Your task to perform on an android device: Search for pizza restaurants on Maps Image 0: 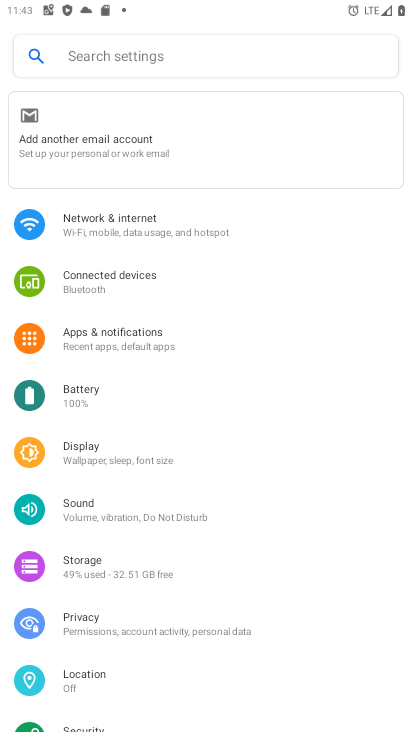
Step 0: press home button
Your task to perform on an android device: Search for pizza restaurants on Maps Image 1: 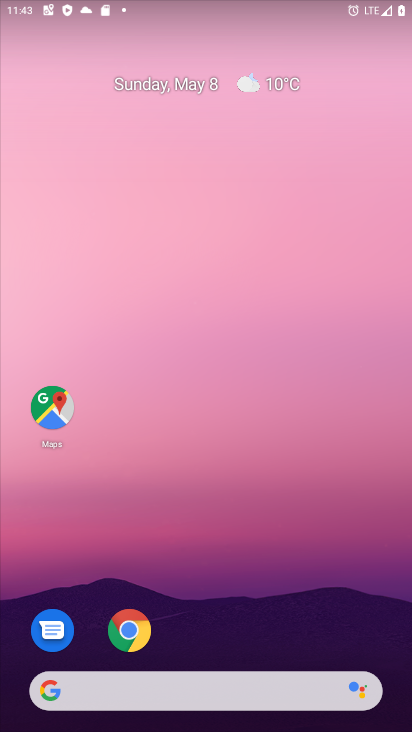
Step 1: drag from (327, 631) to (259, 10)
Your task to perform on an android device: Search for pizza restaurants on Maps Image 2: 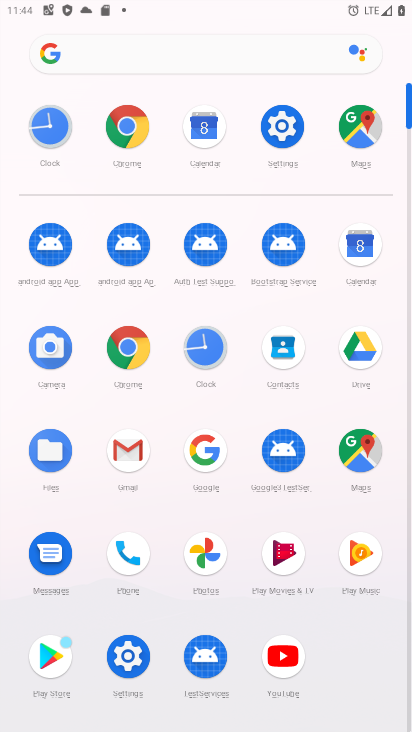
Step 2: click (361, 450)
Your task to perform on an android device: Search for pizza restaurants on Maps Image 3: 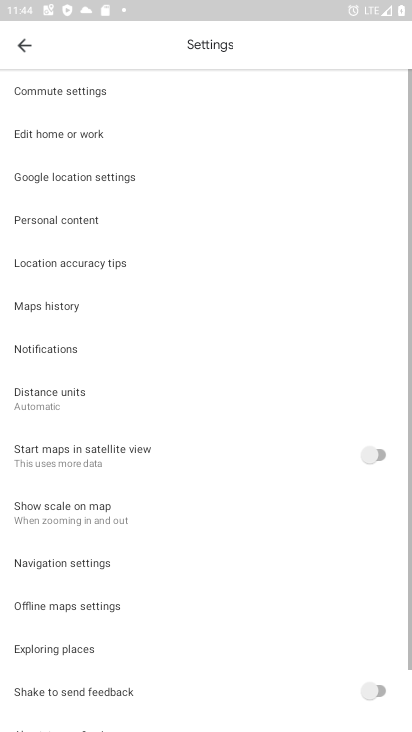
Step 3: click (11, 43)
Your task to perform on an android device: Search for pizza restaurants on Maps Image 4: 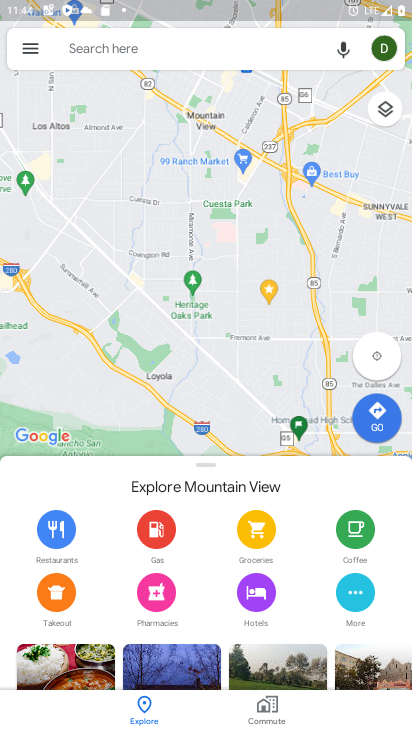
Step 4: click (104, 49)
Your task to perform on an android device: Search for pizza restaurants on Maps Image 5: 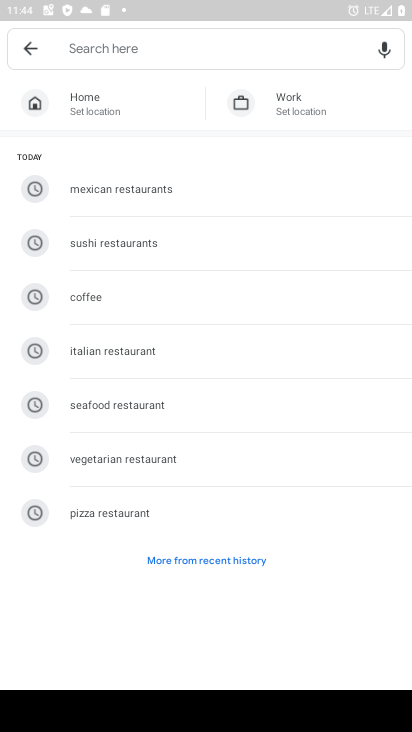
Step 5: click (167, 512)
Your task to perform on an android device: Search for pizza restaurants on Maps Image 6: 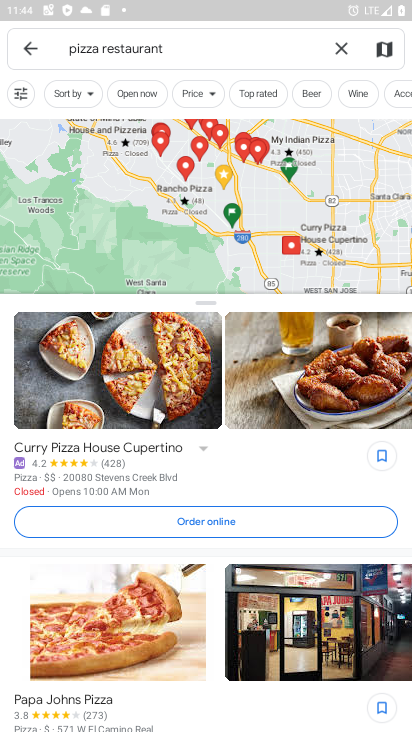
Step 6: task complete